Your task to perform on an android device: change alarm snooze length Image 0: 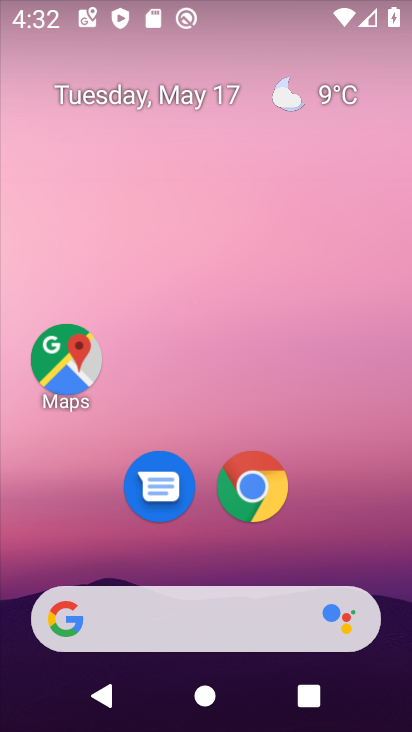
Step 0: drag from (372, 533) to (281, 165)
Your task to perform on an android device: change alarm snooze length Image 1: 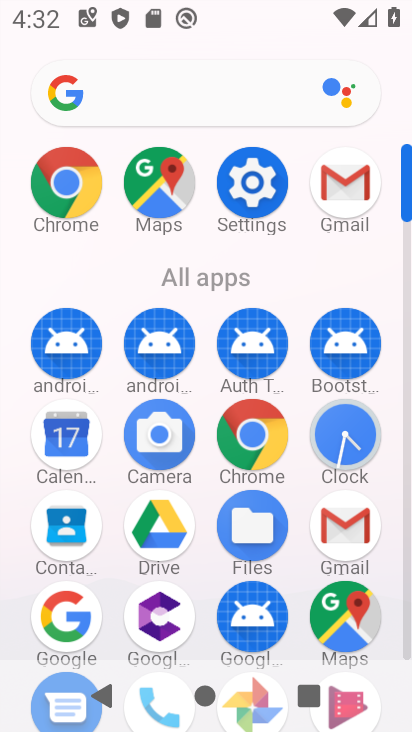
Step 1: click (329, 433)
Your task to perform on an android device: change alarm snooze length Image 2: 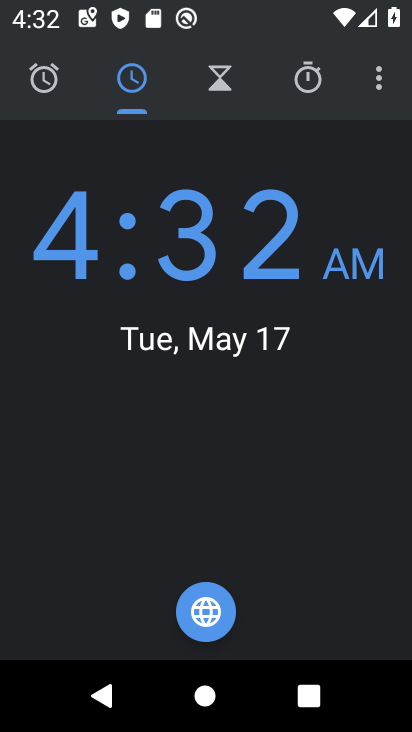
Step 2: click (384, 78)
Your task to perform on an android device: change alarm snooze length Image 3: 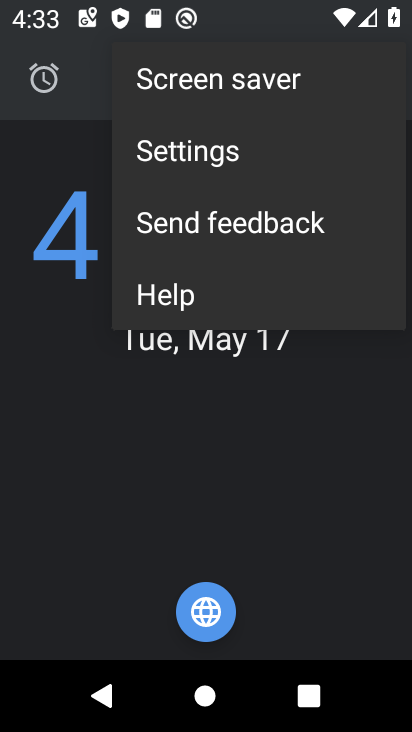
Step 3: click (290, 150)
Your task to perform on an android device: change alarm snooze length Image 4: 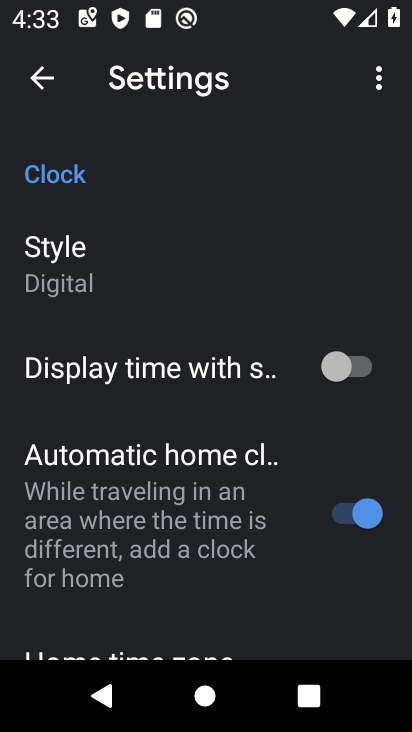
Step 4: drag from (227, 603) to (187, 205)
Your task to perform on an android device: change alarm snooze length Image 5: 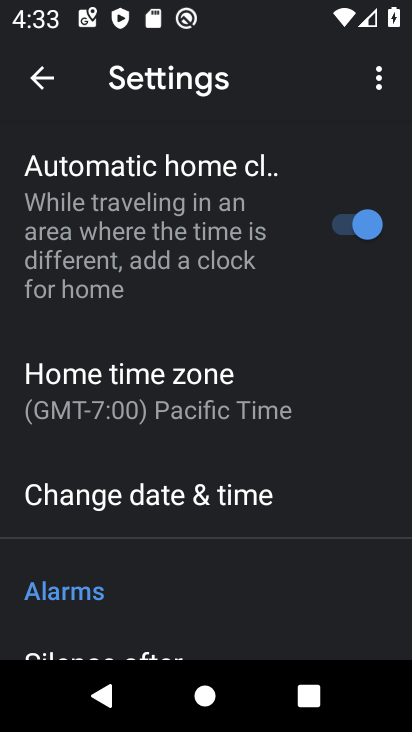
Step 5: drag from (199, 601) to (178, 258)
Your task to perform on an android device: change alarm snooze length Image 6: 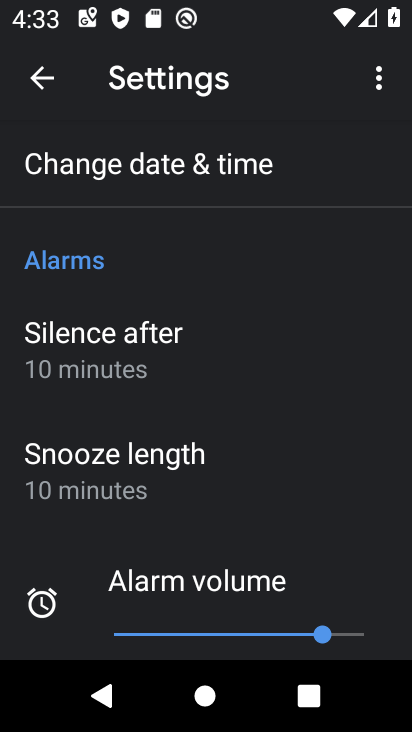
Step 6: click (211, 465)
Your task to perform on an android device: change alarm snooze length Image 7: 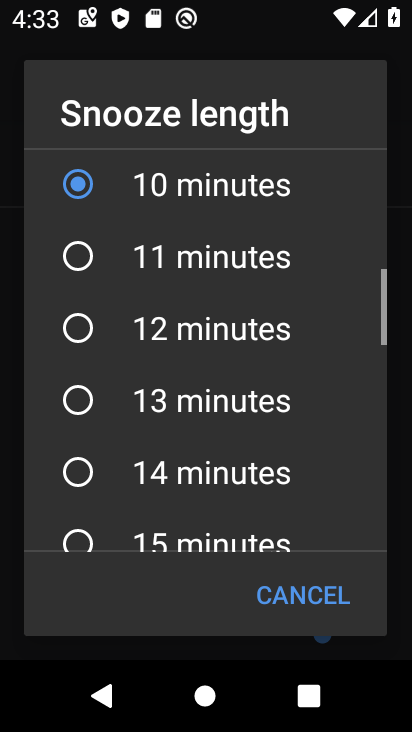
Step 7: click (213, 477)
Your task to perform on an android device: change alarm snooze length Image 8: 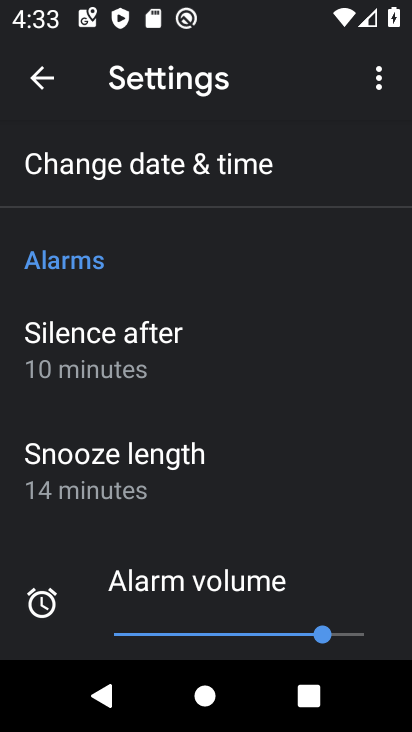
Step 8: task complete